Your task to perform on an android device: What is the news today? Image 0: 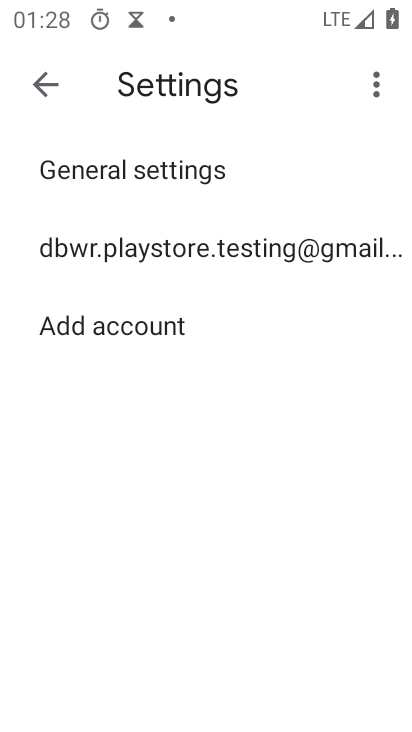
Step 0: press home button
Your task to perform on an android device: What is the news today? Image 1: 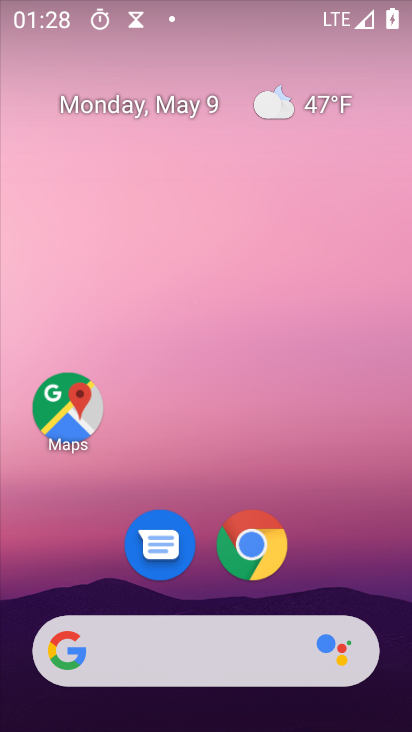
Step 1: drag from (311, 602) to (305, 48)
Your task to perform on an android device: What is the news today? Image 2: 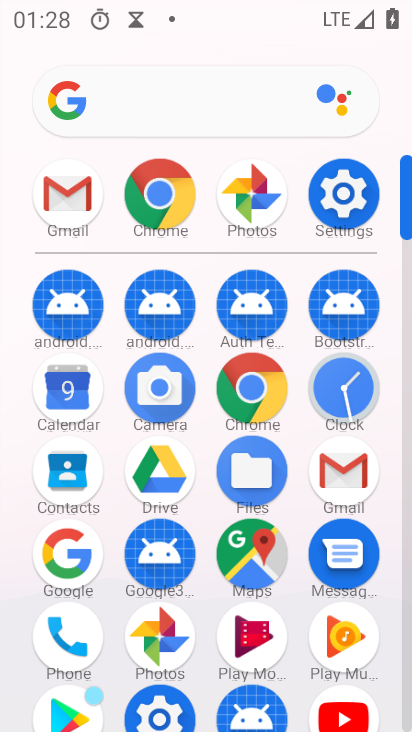
Step 2: click (251, 385)
Your task to perform on an android device: What is the news today? Image 3: 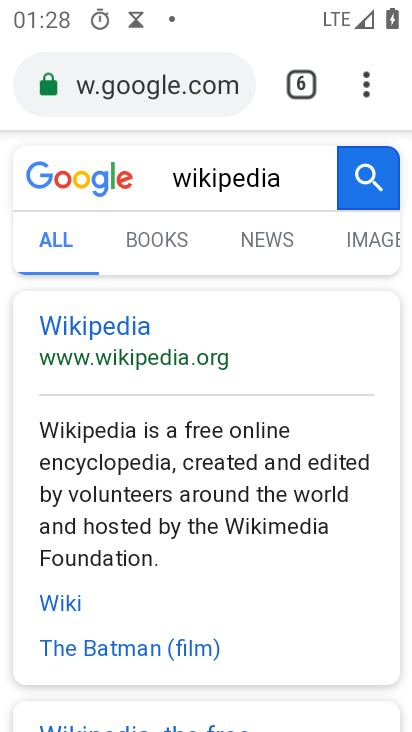
Step 3: click (229, 102)
Your task to perform on an android device: What is the news today? Image 4: 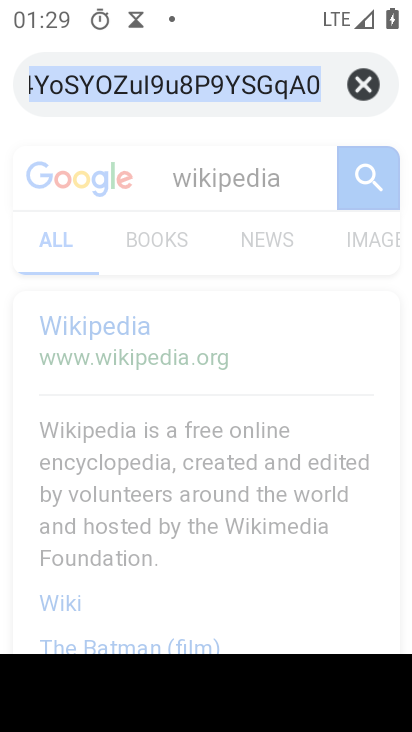
Step 4: click (347, 83)
Your task to perform on an android device: What is the news today? Image 5: 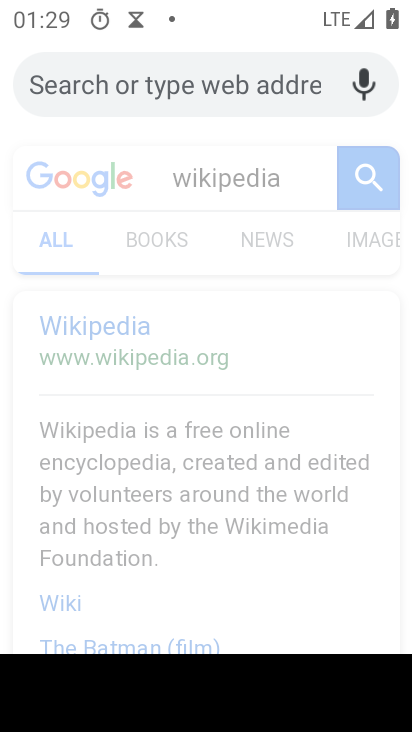
Step 5: type "news today"
Your task to perform on an android device: What is the news today? Image 6: 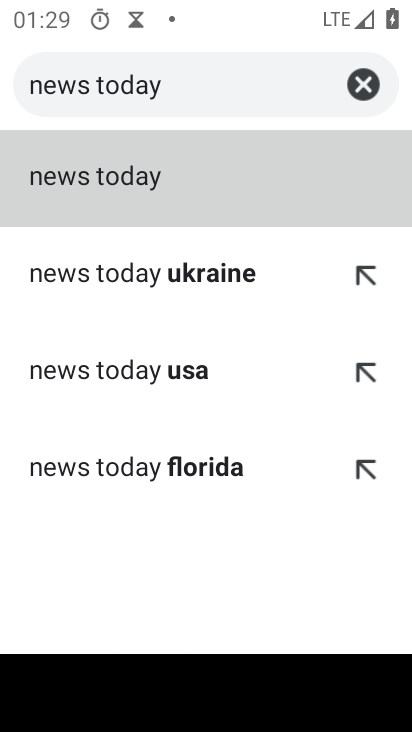
Step 6: click (221, 199)
Your task to perform on an android device: What is the news today? Image 7: 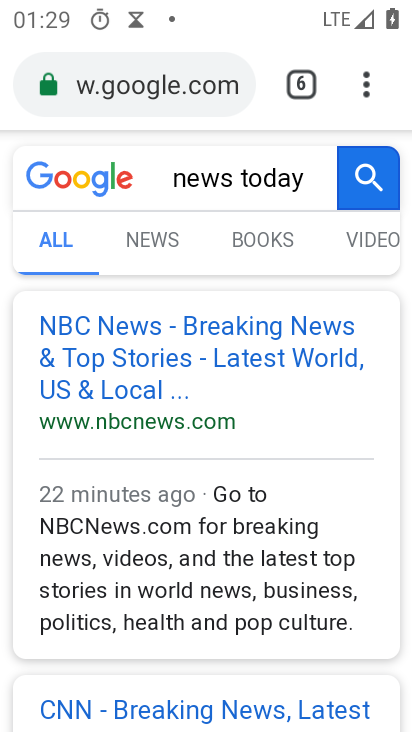
Step 7: task complete